Your task to perform on an android device: Search for seafood restaurants on Google Maps Image 0: 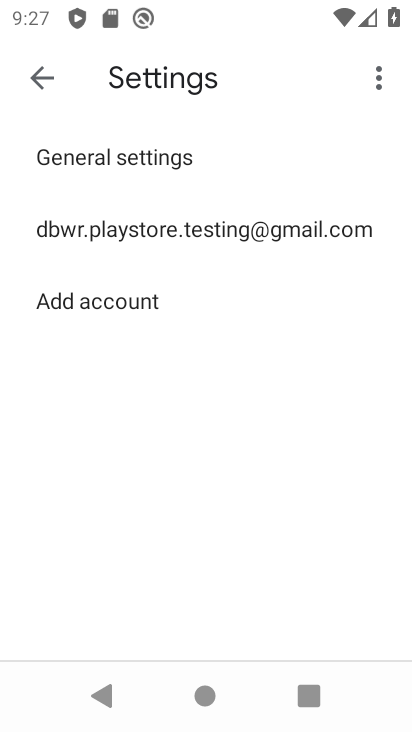
Step 0: press home button
Your task to perform on an android device: Search for seafood restaurants on Google Maps Image 1: 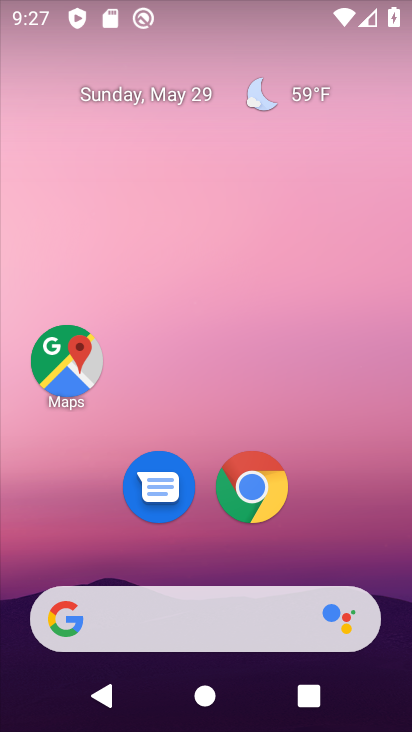
Step 1: click (75, 353)
Your task to perform on an android device: Search for seafood restaurants on Google Maps Image 2: 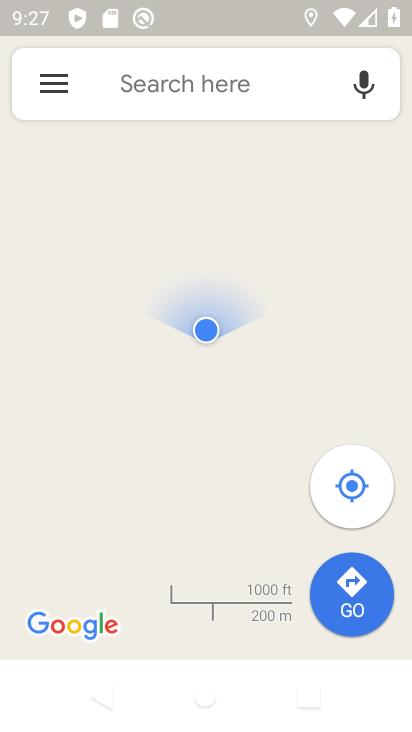
Step 2: click (231, 96)
Your task to perform on an android device: Search for seafood restaurants on Google Maps Image 3: 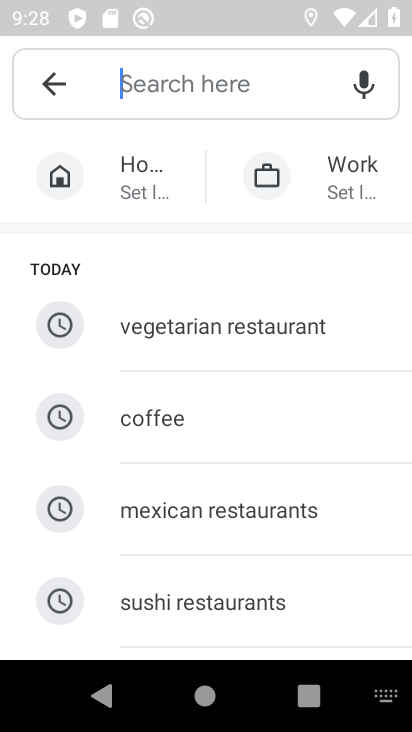
Step 3: type "seafood restaurants"
Your task to perform on an android device: Search for seafood restaurants on Google Maps Image 4: 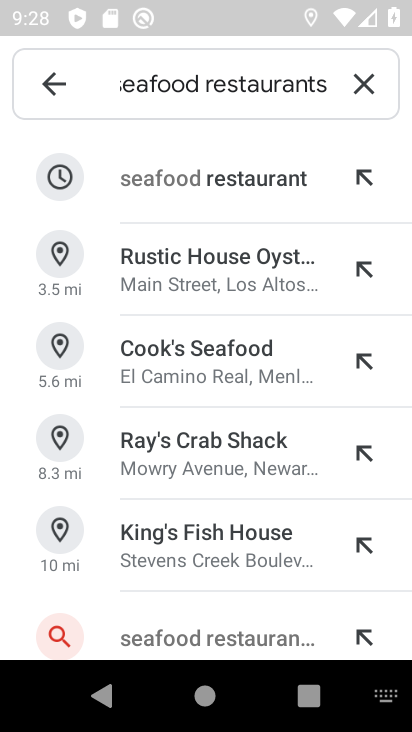
Step 4: click (226, 183)
Your task to perform on an android device: Search for seafood restaurants on Google Maps Image 5: 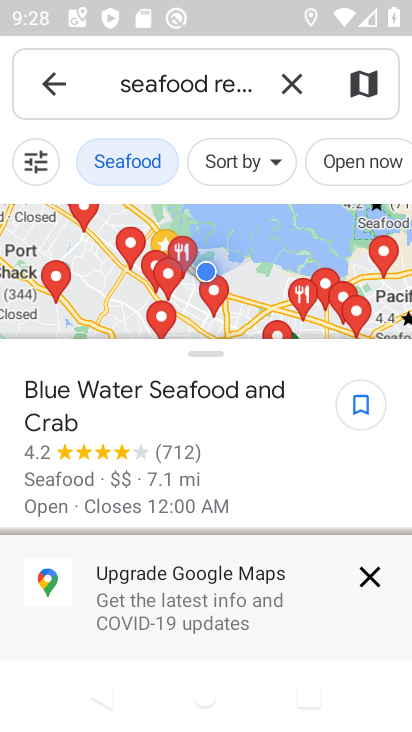
Step 5: click (361, 578)
Your task to perform on an android device: Search for seafood restaurants on Google Maps Image 6: 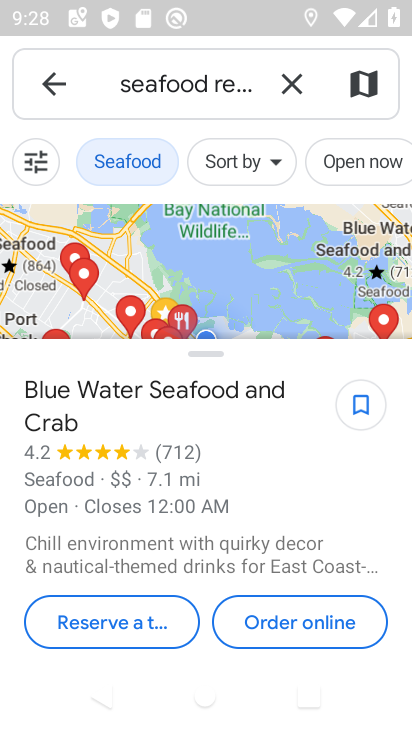
Step 6: task complete